Your task to perform on an android device: Open calendar and show me the fourth week of next month Image 0: 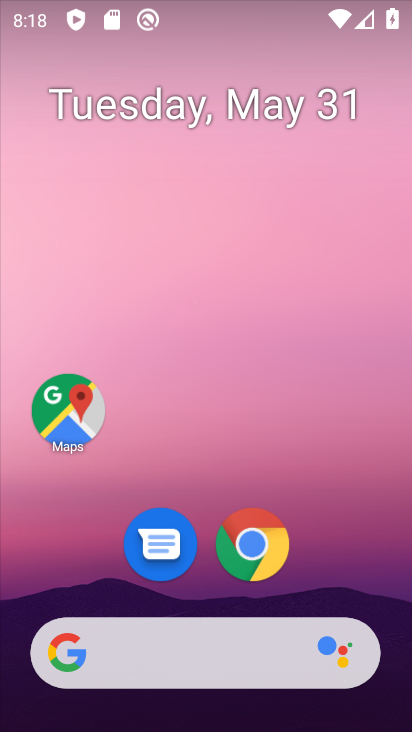
Step 0: drag from (319, 574) to (344, 2)
Your task to perform on an android device: Open calendar and show me the fourth week of next month Image 1: 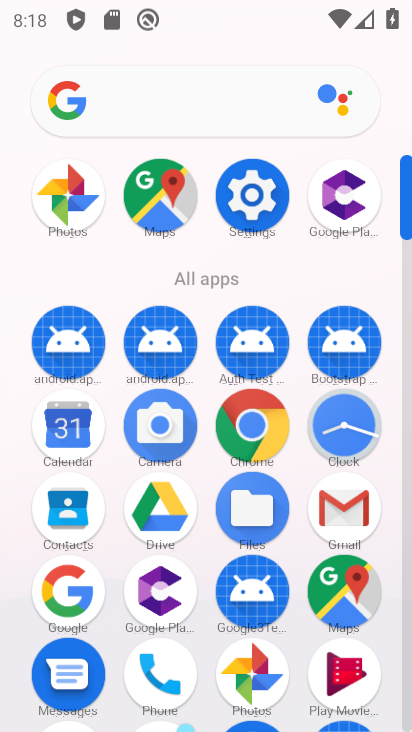
Step 1: click (57, 424)
Your task to perform on an android device: Open calendar and show me the fourth week of next month Image 2: 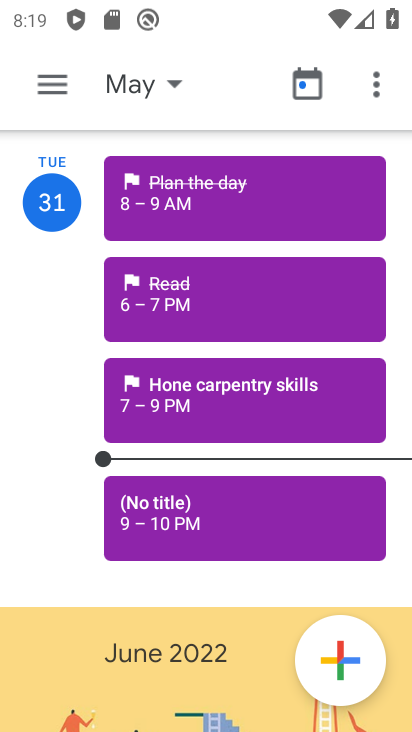
Step 2: click (126, 70)
Your task to perform on an android device: Open calendar and show me the fourth week of next month Image 3: 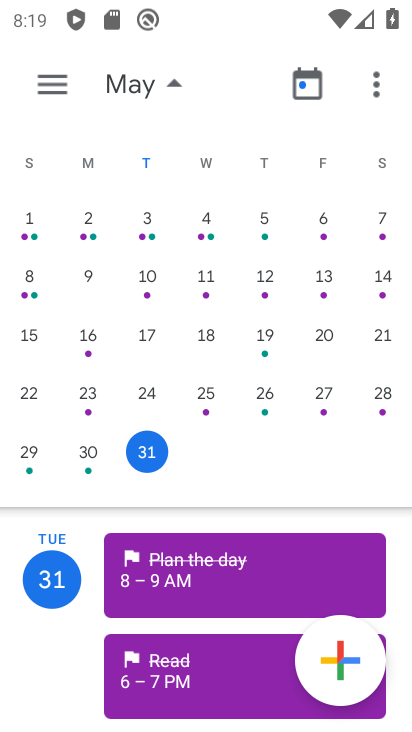
Step 3: drag from (369, 302) to (67, 372)
Your task to perform on an android device: Open calendar and show me the fourth week of next month Image 4: 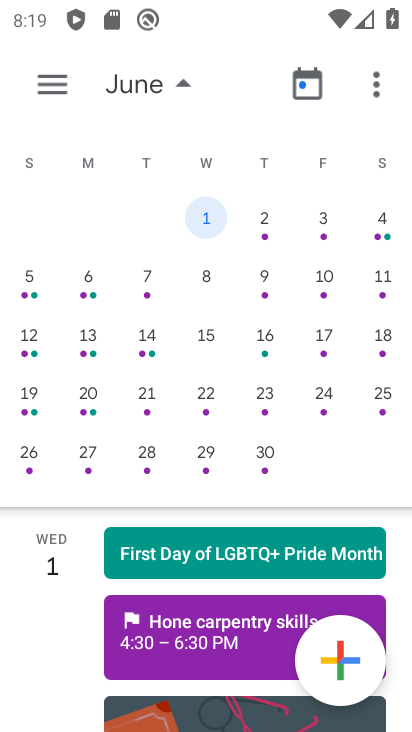
Step 4: click (37, 400)
Your task to perform on an android device: Open calendar and show me the fourth week of next month Image 5: 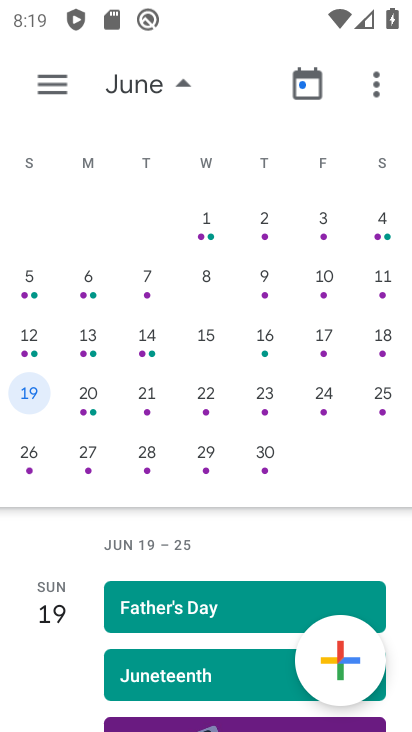
Step 5: task complete